Your task to perform on an android device: change the upload size in google photos Image 0: 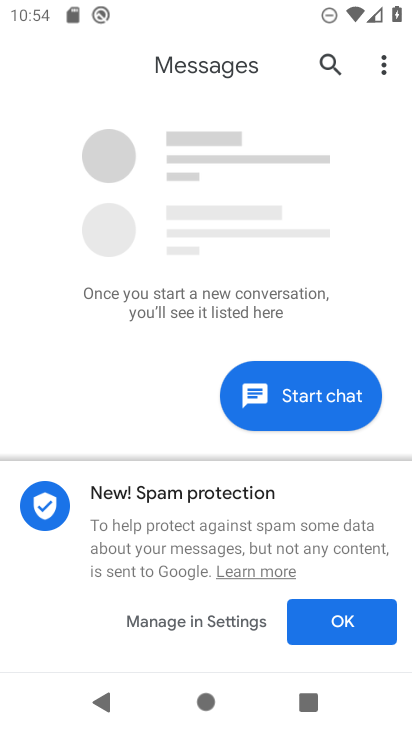
Step 0: drag from (383, 586) to (378, 273)
Your task to perform on an android device: change the upload size in google photos Image 1: 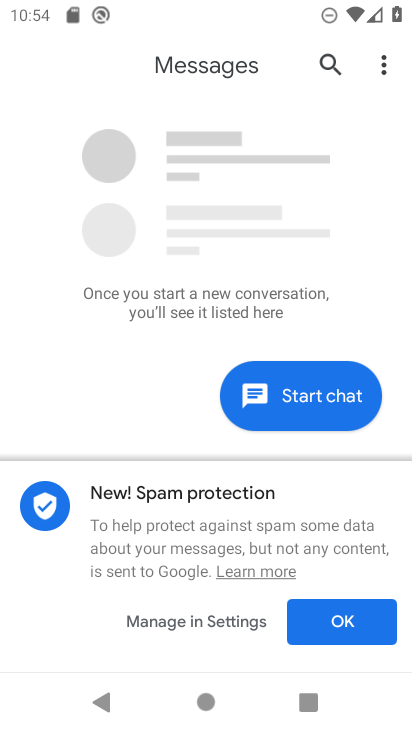
Step 1: press home button
Your task to perform on an android device: change the upload size in google photos Image 2: 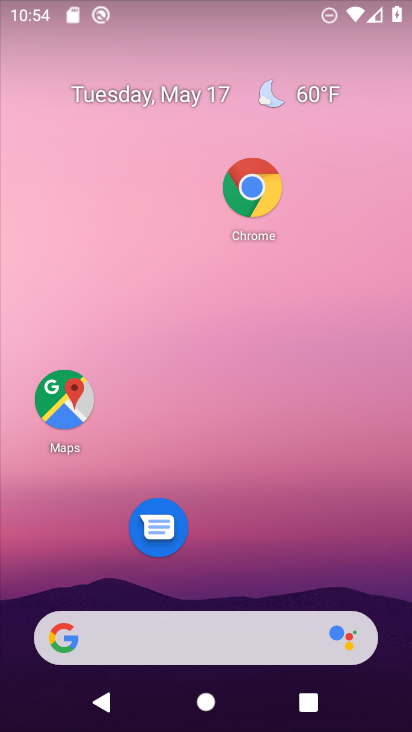
Step 2: drag from (371, 538) to (374, 207)
Your task to perform on an android device: change the upload size in google photos Image 3: 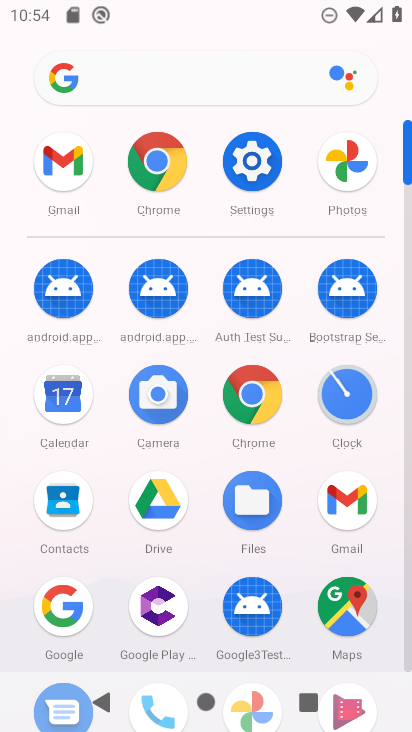
Step 3: click (354, 185)
Your task to perform on an android device: change the upload size in google photos Image 4: 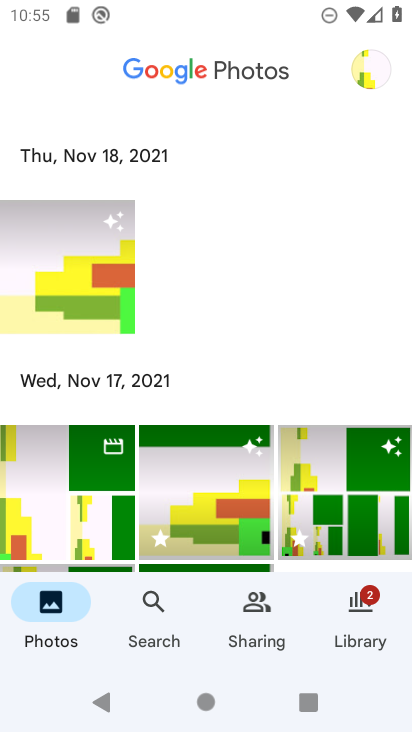
Step 4: click (362, 80)
Your task to perform on an android device: change the upload size in google photos Image 5: 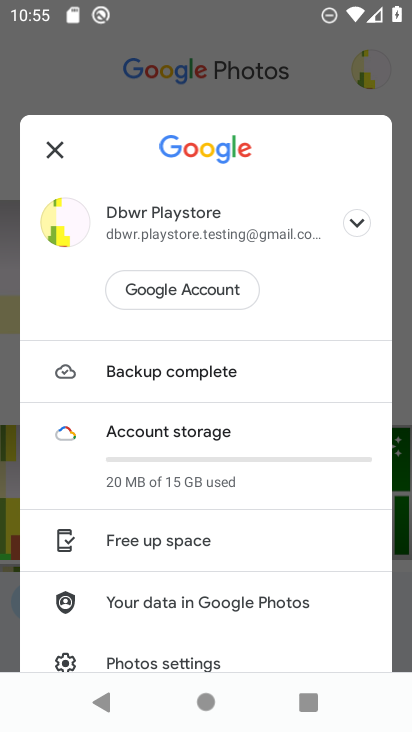
Step 5: drag from (295, 481) to (281, 301)
Your task to perform on an android device: change the upload size in google photos Image 6: 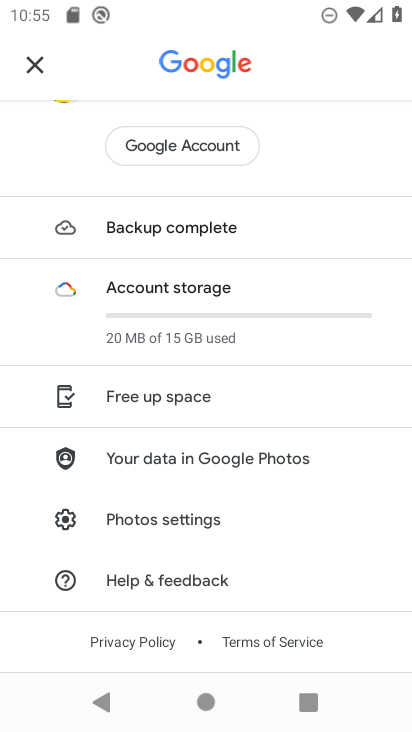
Step 6: click (184, 495)
Your task to perform on an android device: change the upload size in google photos Image 7: 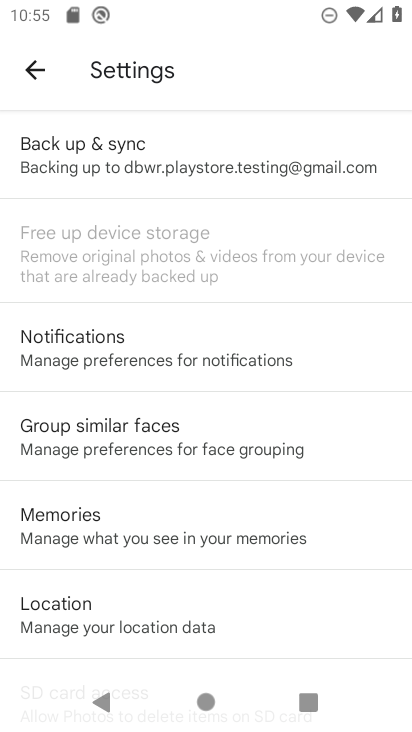
Step 7: click (63, 359)
Your task to perform on an android device: change the upload size in google photos Image 8: 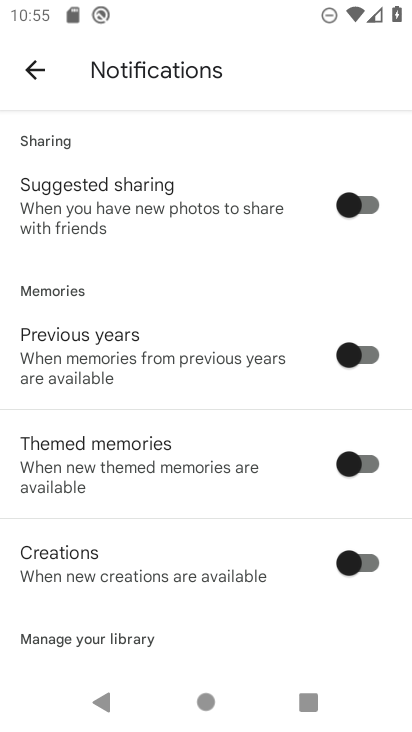
Step 8: task complete